Your task to perform on an android device: open chrome and create a bookmark for the current page Image 0: 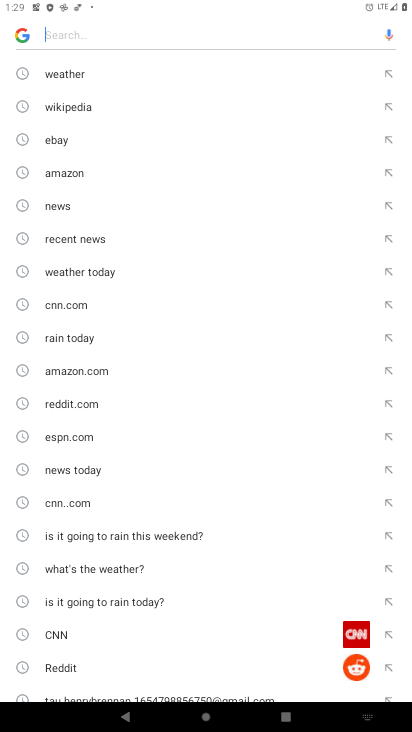
Step 0: press home button
Your task to perform on an android device: open chrome and create a bookmark for the current page Image 1: 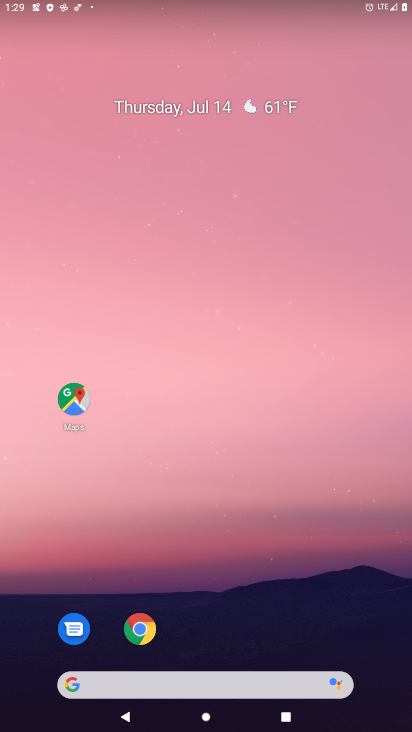
Step 1: click (147, 634)
Your task to perform on an android device: open chrome and create a bookmark for the current page Image 2: 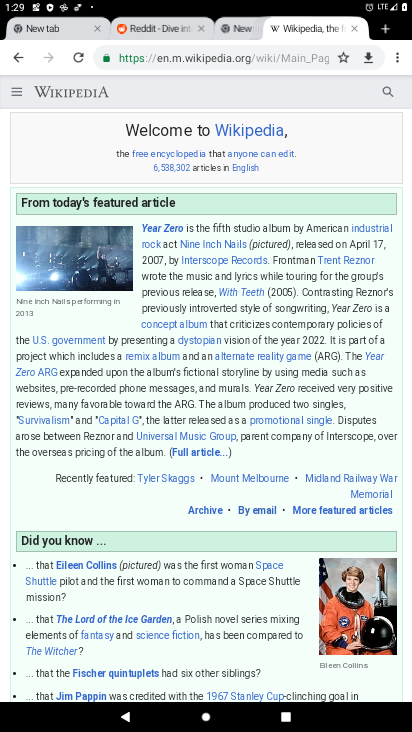
Step 2: click (345, 60)
Your task to perform on an android device: open chrome and create a bookmark for the current page Image 3: 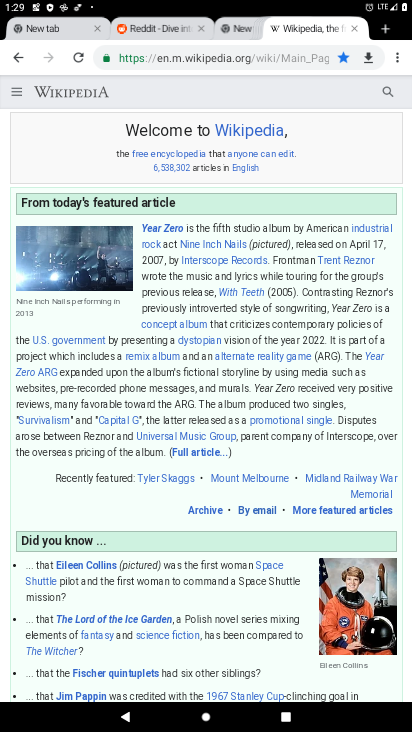
Step 3: task complete